Your task to perform on an android device: Is it going to rain today? Image 0: 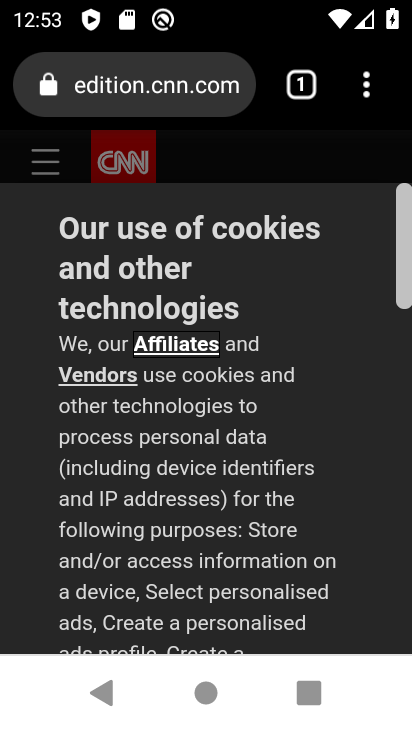
Step 0: press home button
Your task to perform on an android device: Is it going to rain today? Image 1: 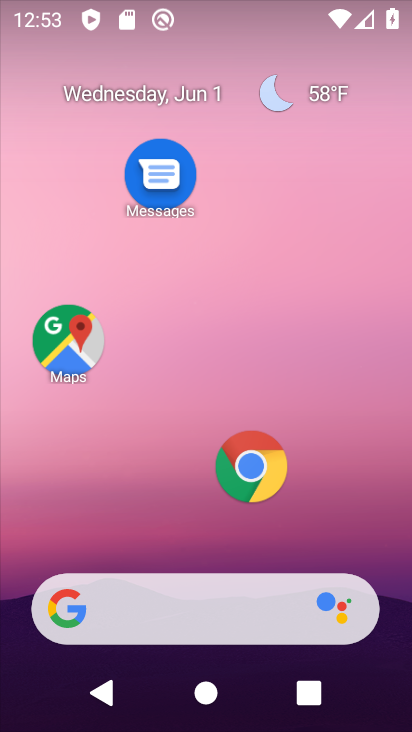
Step 1: click (198, 621)
Your task to perform on an android device: Is it going to rain today? Image 2: 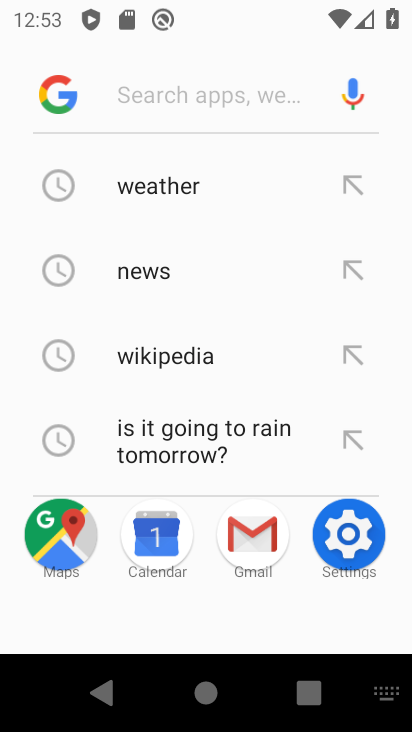
Step 2: click (183, 186)
Your task to perform on an android device: Is it going to rain today? Image 3: 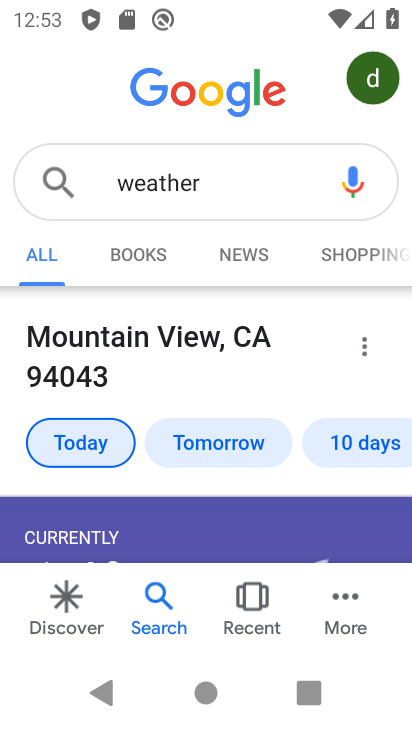
Step 3: task complete